Your task to perform on an android device: Open accessibility settings Image 0: 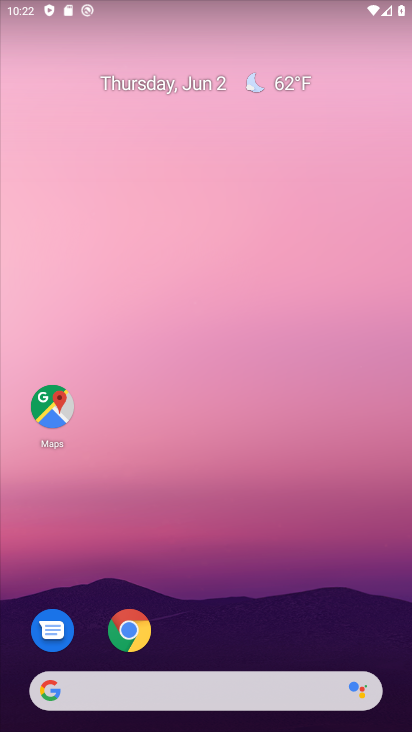
Step 0: press home button
Your task to perform on an android device: Open accessibility settings Image 1: 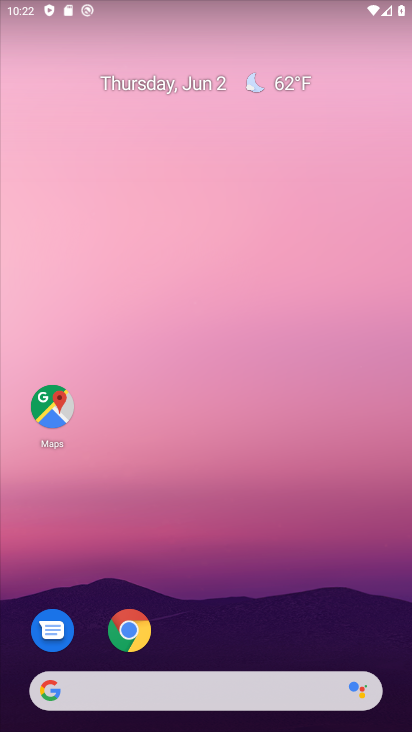
Step 1: drag from (194, 673) to (347, 145)
Your task to perform on an android device: Open accessibility settings Image 2: 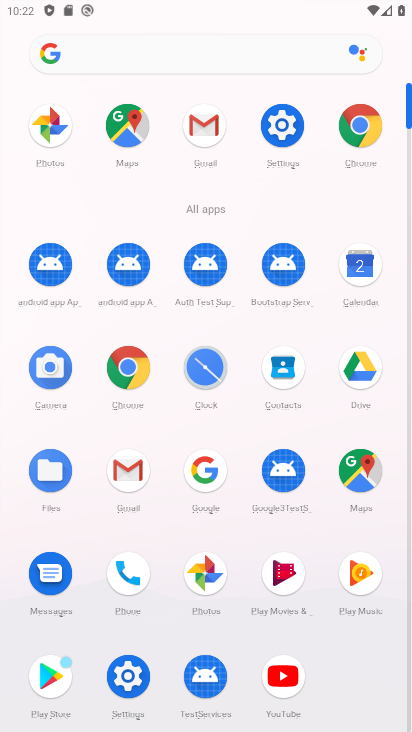
Step 2: click (133, 685)
Your task to perform on an android device: Open accessibility settings Image 3: 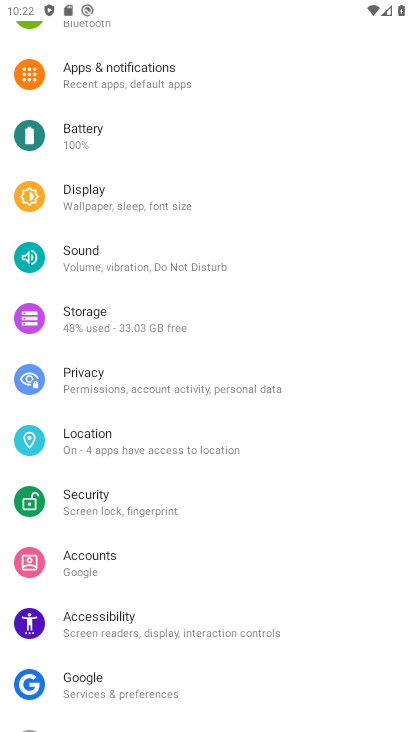
Step 3: drag from (252, 670) to (283, 186)
Your task to perform on an android device: Open accessibility settings Image 4: 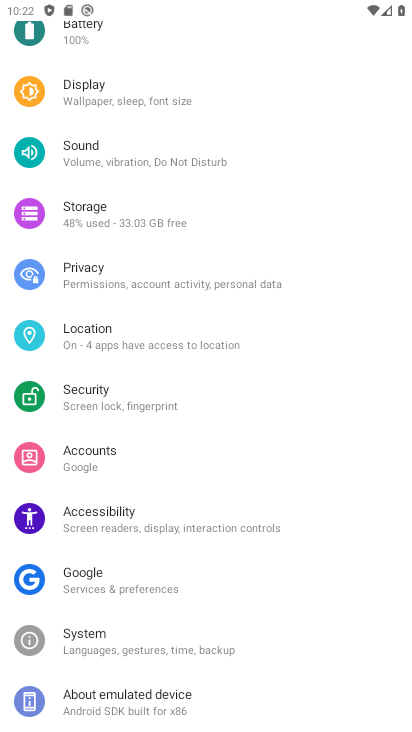
Step 4: click (140, 518)
Your task to perform on an android device: Open accessibility settings Image 5: 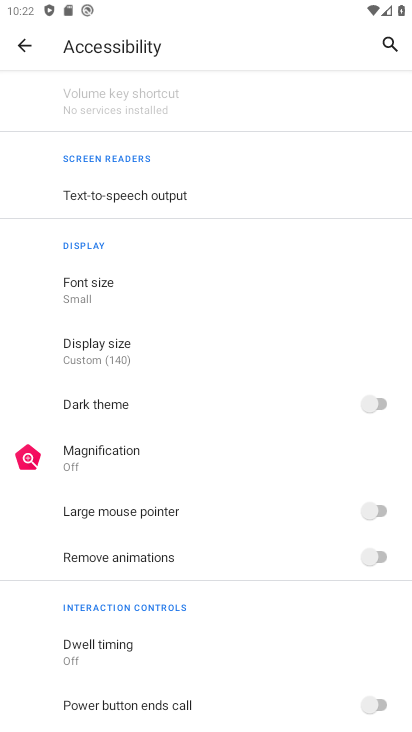
Step 5: task complete